Your task to perform on an android device: Go to sound settings Image 0: 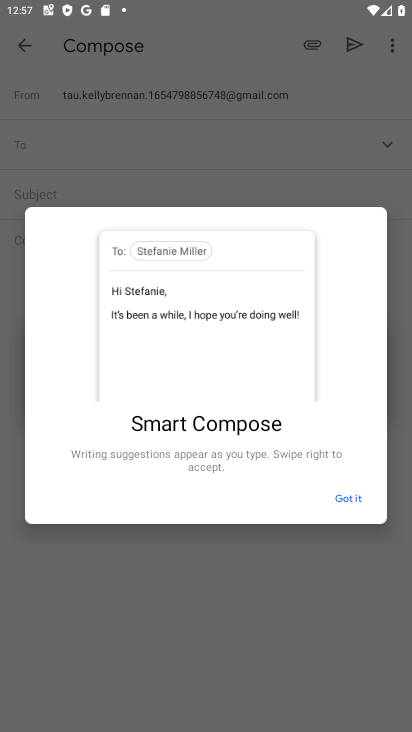
Step 0: press home button
Your task to perform on an android device: Go to sound settings Image 1: 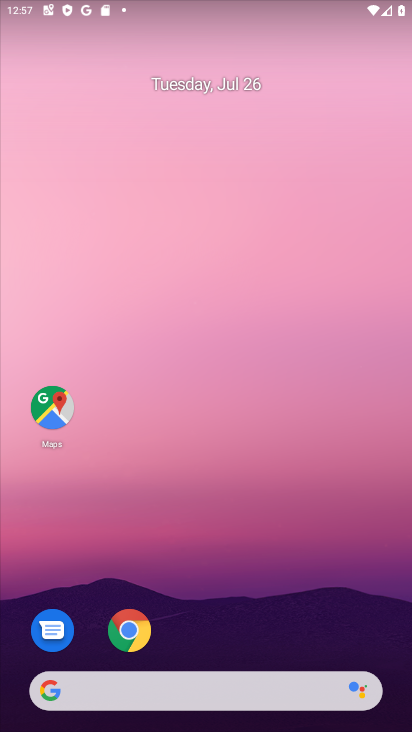
Step 1: drag from (168, 451) to (184, 285)
Your task to perform on an android device: Go to sound settings Image 2: 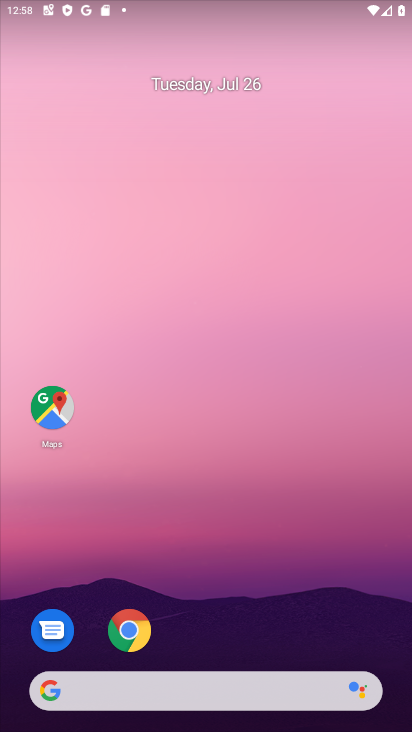
Step 2: drag from (215, 612) to (217, 221)
Your task to perform on an android device: Go to sound settings Image 3: 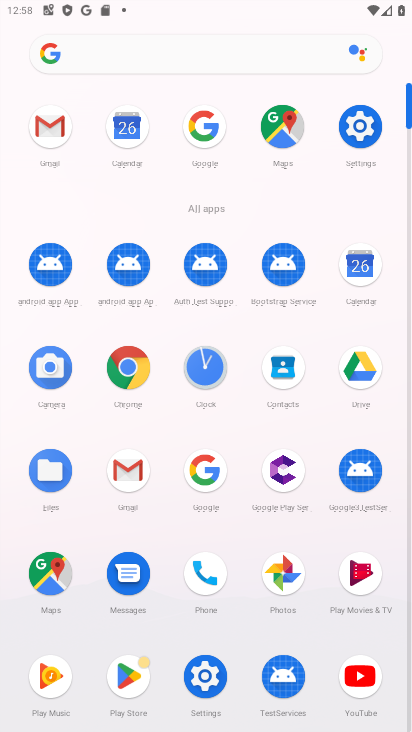
Step 3: click (201, 672)
Your task to perform on an android device: Go to sound settings Image 4: 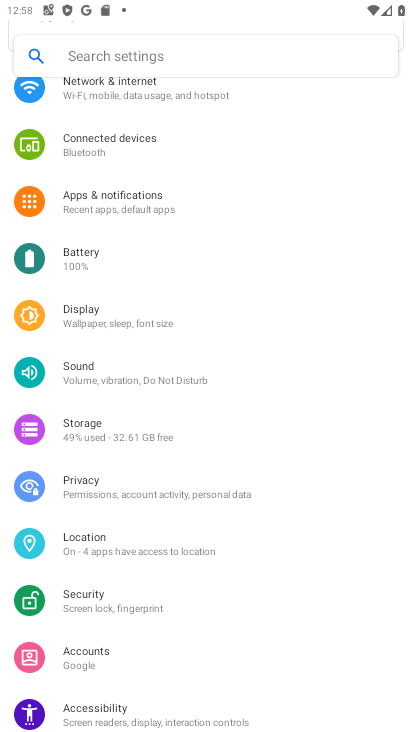
Step 4: click (100, 372)
Your task to perform on an android device: Go to sound settings Image 5: 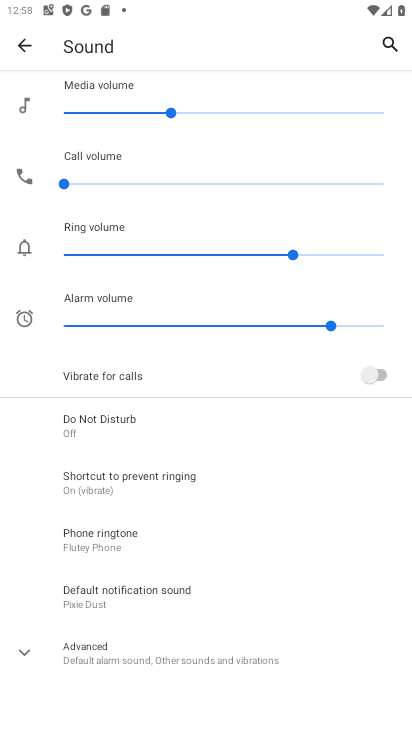
Step 5: task complete